Your task to perform on an android device: change the upload size in google photos Image 0: 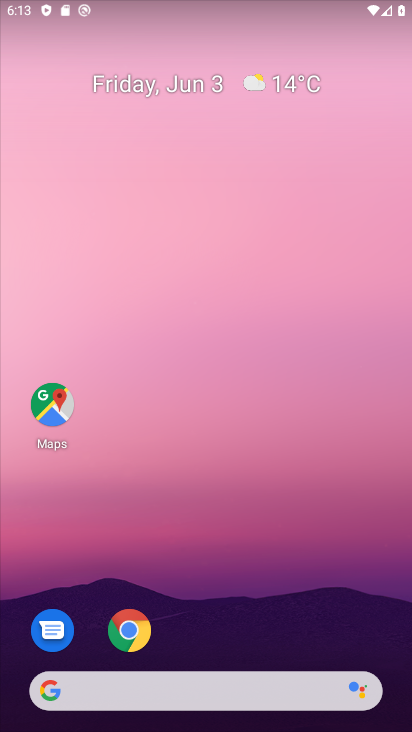
Step 0: drag from (194, 636) to (213, 167)
Your task to perform on an android device: change the upload size in google photos Image 1: 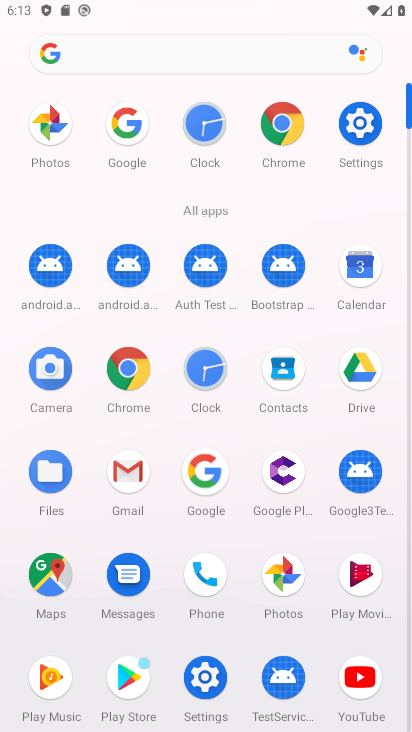
Step 1: click (275, 577)
Your task to perform on an android device: change the upload size in google photos Image 2: 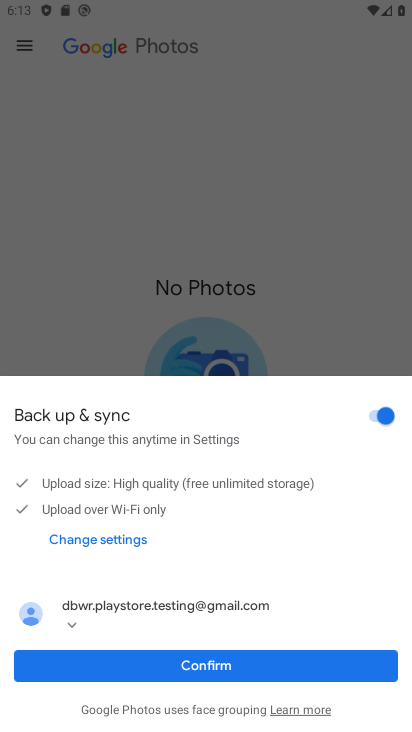
Step 2: click (210, 667)
Your task to perform on an android device: change the upload size in google photos Image 3: 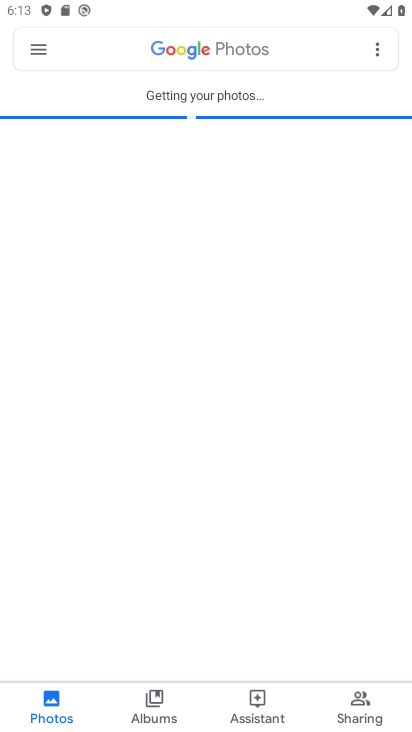
Step 3: click (37, 40)
Your task to perform on an android device: change the upload size in google photos Image 4: 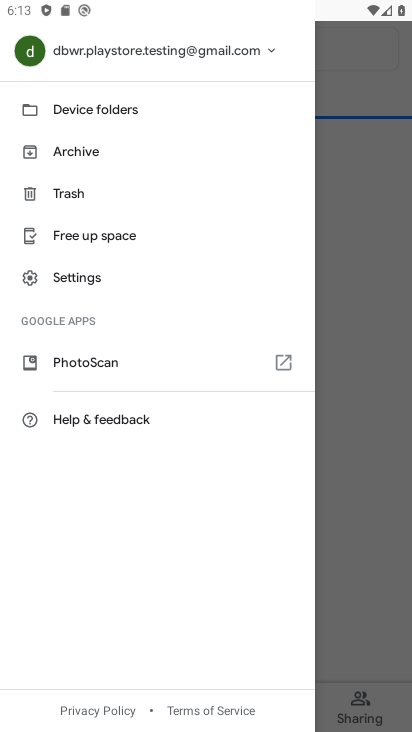
Step 4: click (113, 110)
Your task to perform on an android device: change the upload size in google photos Image 5: 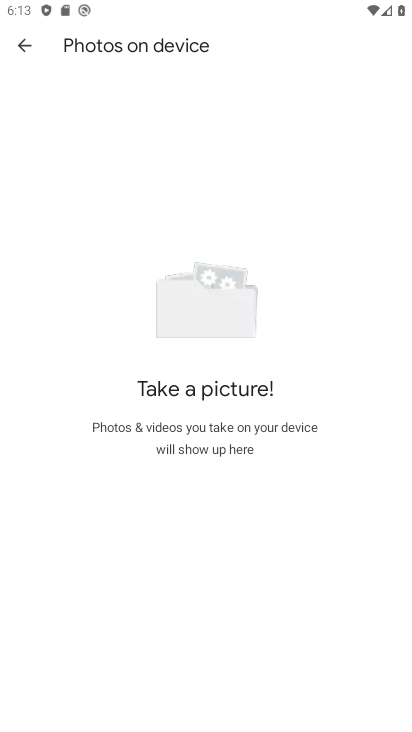
Step 5: click (28, 47)
Your task to perform on an android device: change the upload size in google photos Image 6: 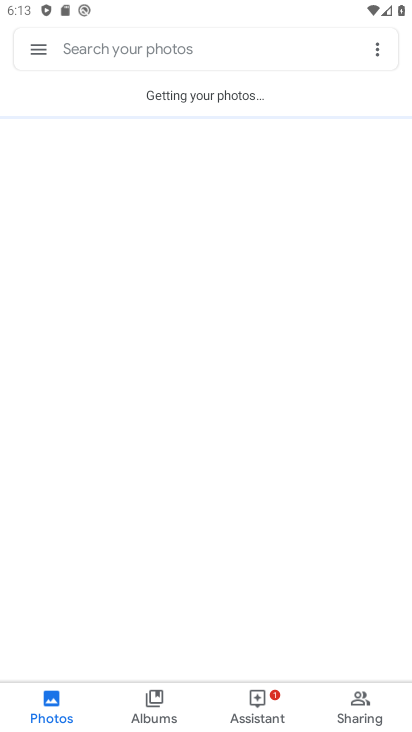
Step 6: click (37, 50)
Your task to perform on an android device: change the upload size in google photos Image 7: 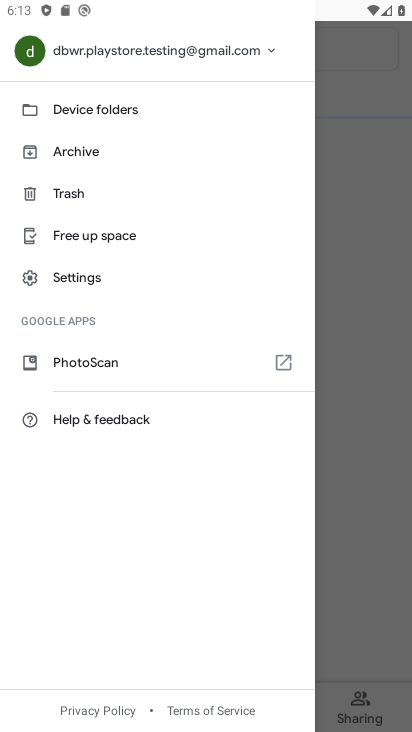
Step 7: click (77, 283)
Your task to perform on an android device: change the upload size in google photos Image 8: 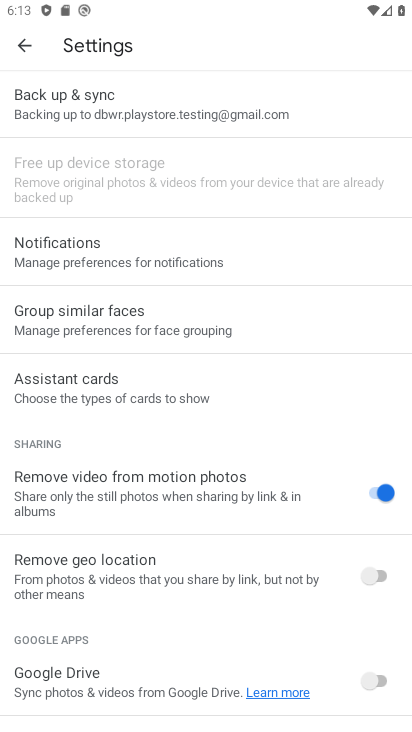
Step 8: click (77, 113)
Your task to perform on an android device: change the upload size in google photos Image 9: 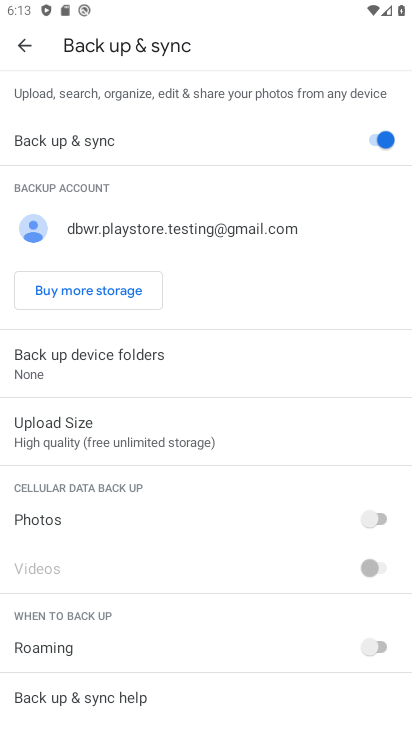
Step 9: click (87, 447)
Your task to perform on an android device: change the upload size in google photos Image 10: 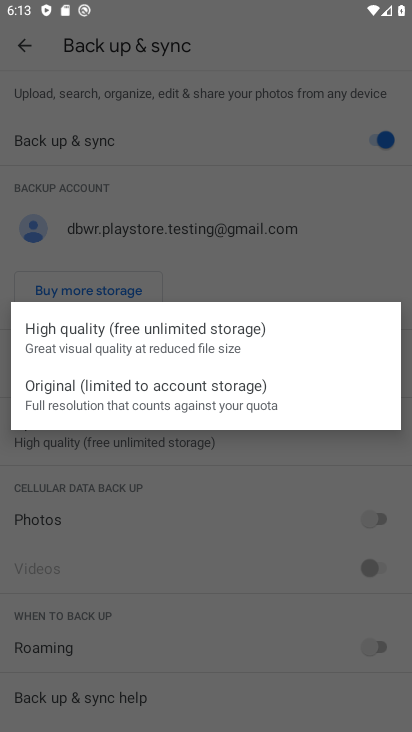
Step 10: click (78, 396)
Your task to perform on an android device: change the upload size in google photos Image 11: 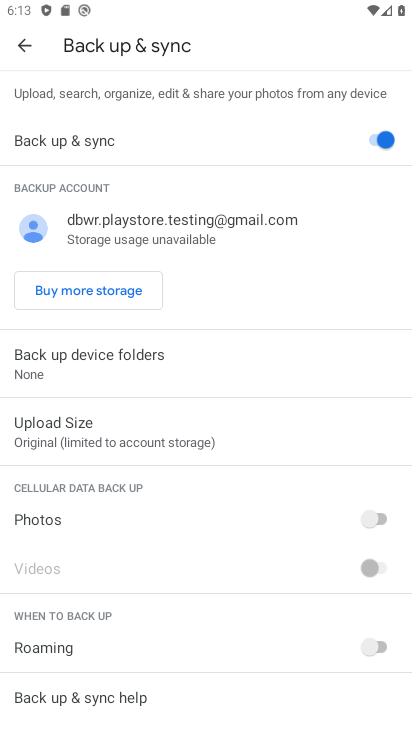
Step 11: task complete